Your task to perform on an android device: What's the weather? Image 0: 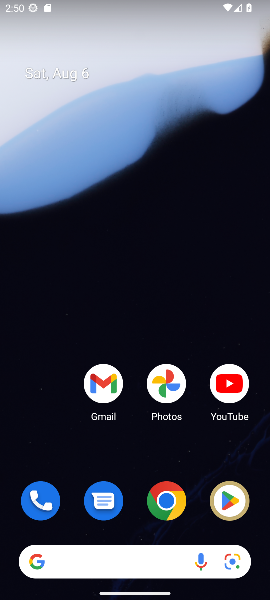
Step 0: drag from (201, 463) to (192, 12)
Your task to perform on an android device: What's the weather? Image 1: 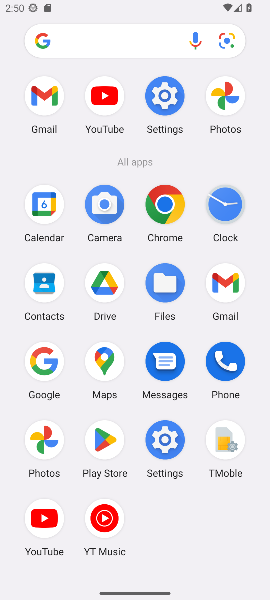
Step 1: click (164, 204)
Your task to perform on an android device: What's the weather? Image 2: 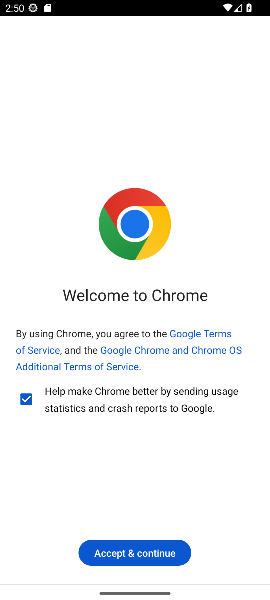
Step 2: click (116, 555)
Your task to perform on an android device: What's the weather? Image 3: 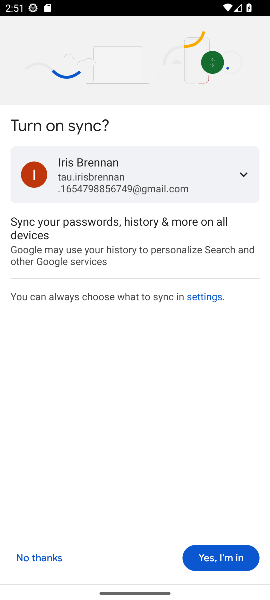
Step 3: click (203, 557)
Your task to perform on an android device: What's the weather? Image 4: 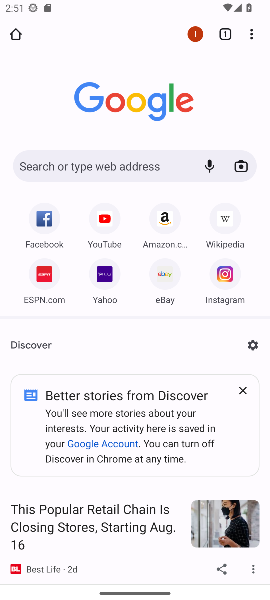
Step 4: click (125, 154)
Your task to perform on an android device: What's the weather? Image 5: 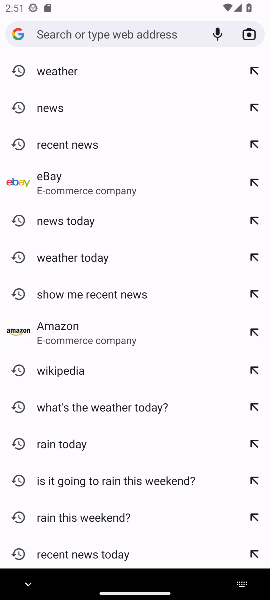
Step 5: type "weather"
Your task to perform on an android device: What's the weather? Image 6: 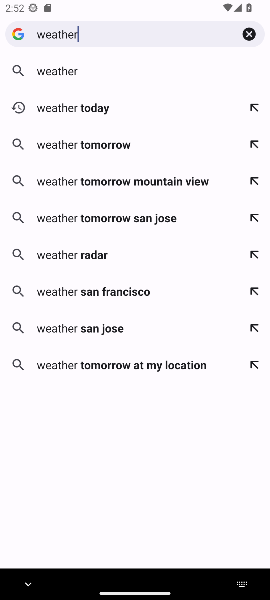
Step 6: click (63, 63)
Your task to perform on an android device: What's the weather? Image 7: 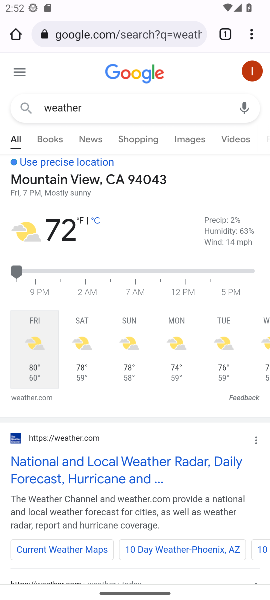
Step 7: task complete